Your task to perform on an android device: Open internet settings Image 0: 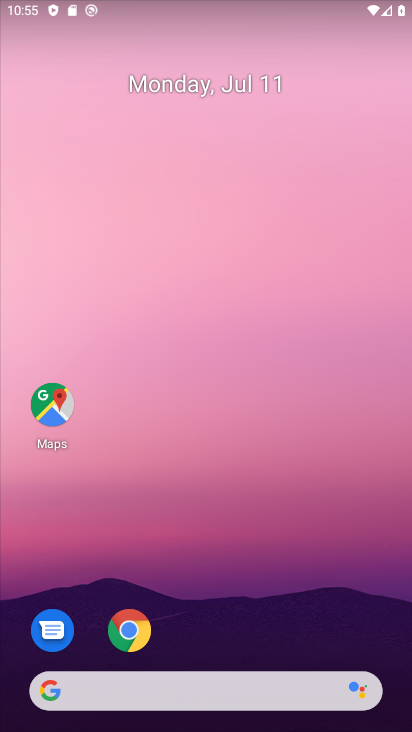
Step 0: drag from (208, 644) to (202, 14)
Your task to perform on an android device: Open internet settings Image 1: 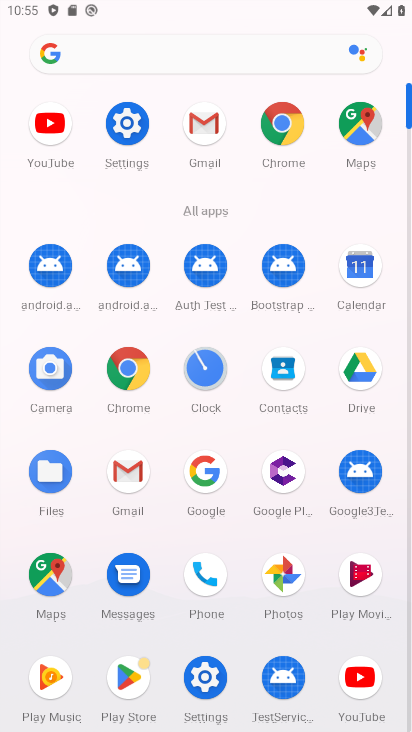
Step 1: click (207, 676)
Your task to perform on an android device: Open internet settings Image 2: 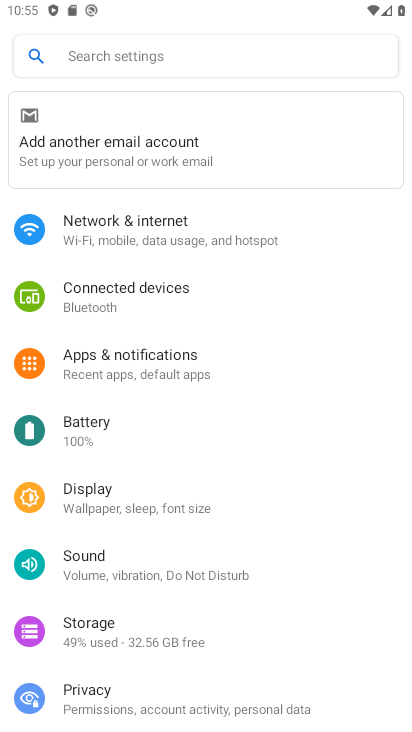
Step 2: click (142, 227)
Your task to perform on an android device: Open internet settings Image 3: 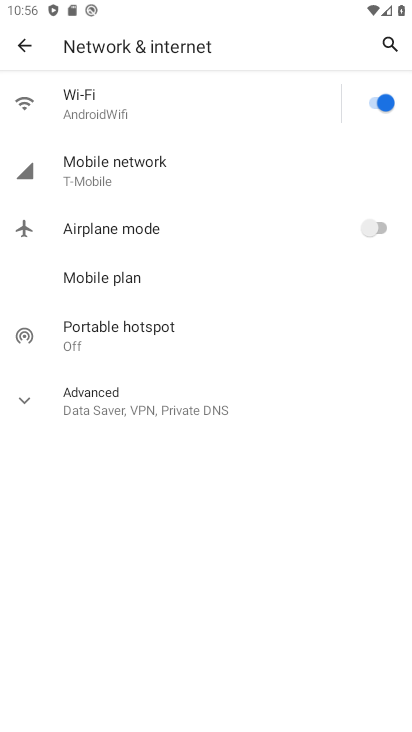
Step 3: task complete